Your task to perform on an android device: Open CNN.com Image 0: 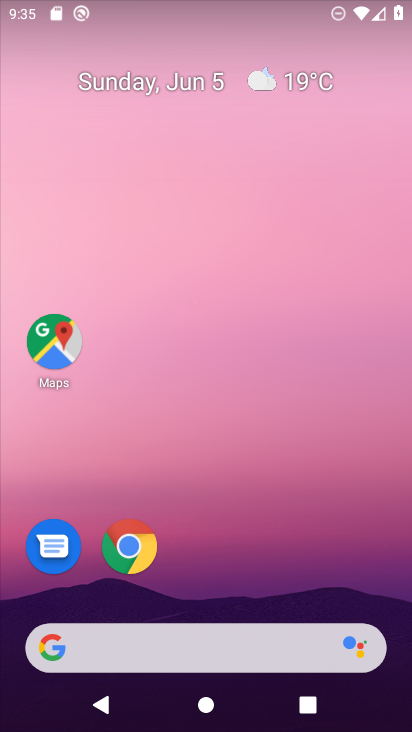
Step 0: click (147, 547)
Your task to perform on an android device: Open CNN.com Image 1: 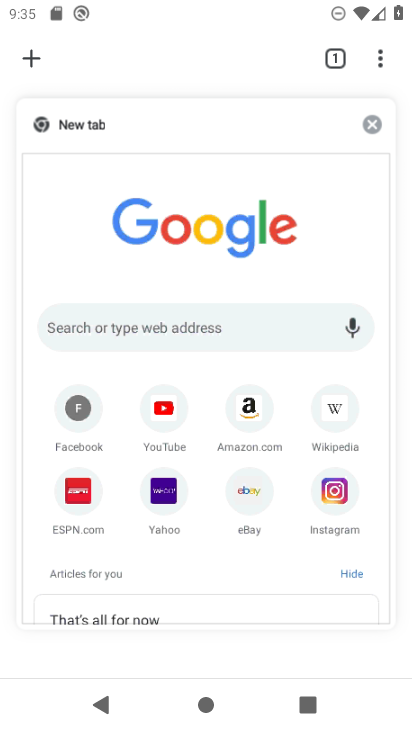
Step 1: click (165, 289)
Your task to perform on an android device: Open CNN.com Image 2: 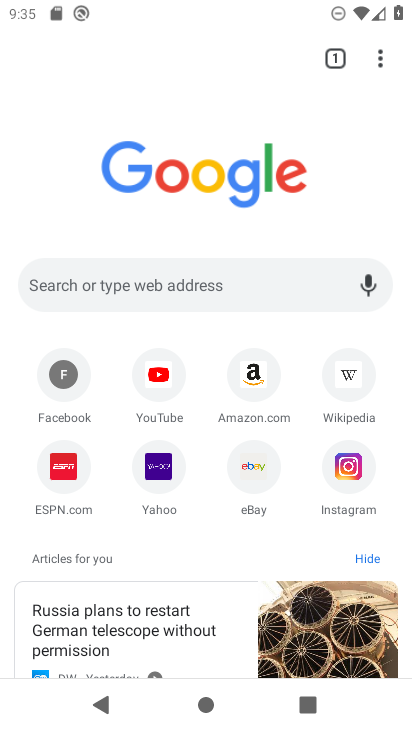
Step 2: click (165, 289)
Your task to perform on an android device: Open CNN.com Image 3: 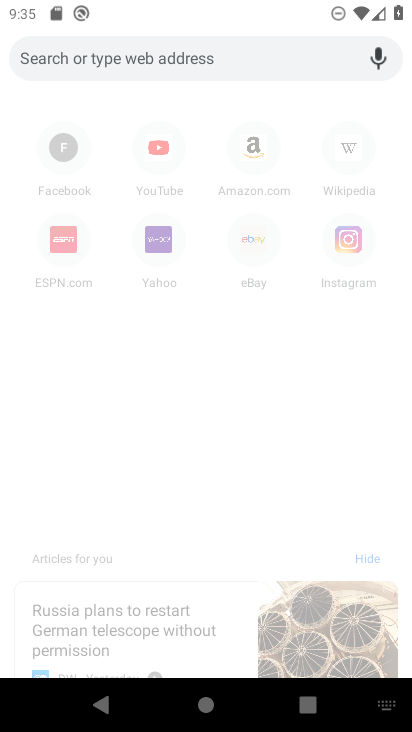
Step 3: type "cnn"
Your task to perform on an android device: Open CNN.com Image 4: 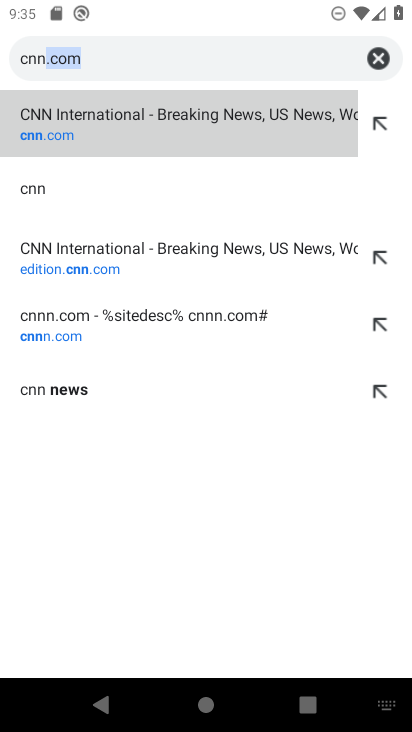
Step 4: click (112, 116)
Your task to perform on an android device: Open CNN.com Image 5: 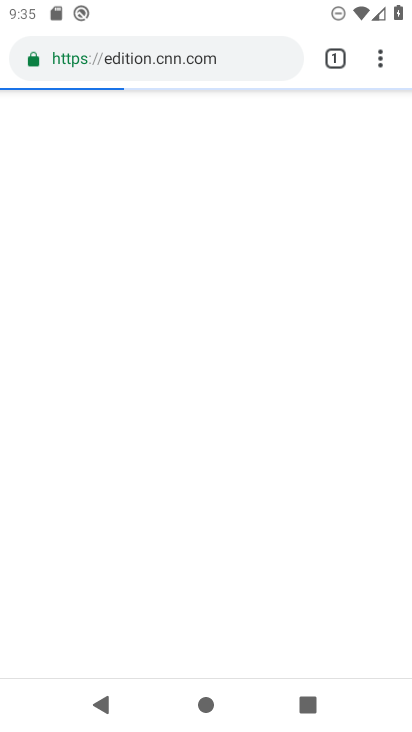
Step 5: task complete